Your task to perform on an android device: change notifications settings Image 0: 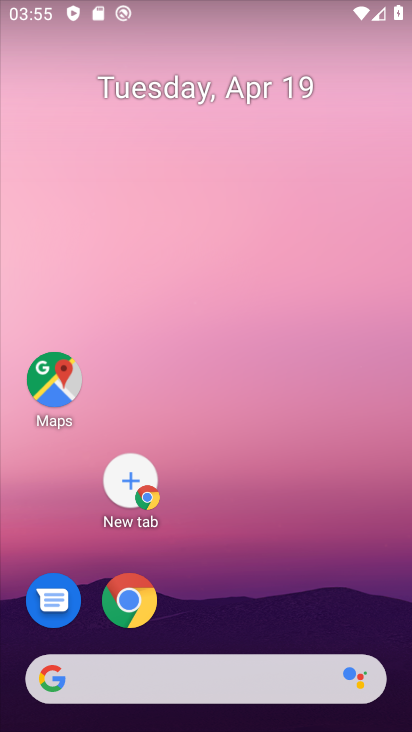
Step 0: drag from (199, 10) to (196, 520)
Your task to perform on an android device: change notifications settings Image 1: 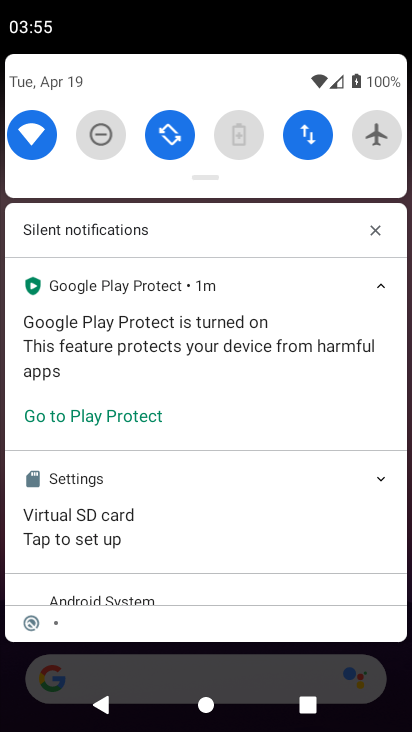
Step 1: drag from (255, 85) to (203, 663)
Your task to perform on an android device: change notifications settings Image 2: 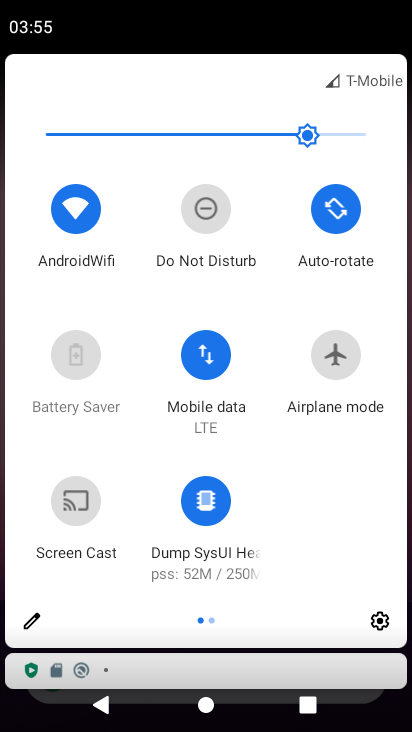
Step 2: click (385, 623)
Your task to perform on an android device: change notifications settings Image 3: 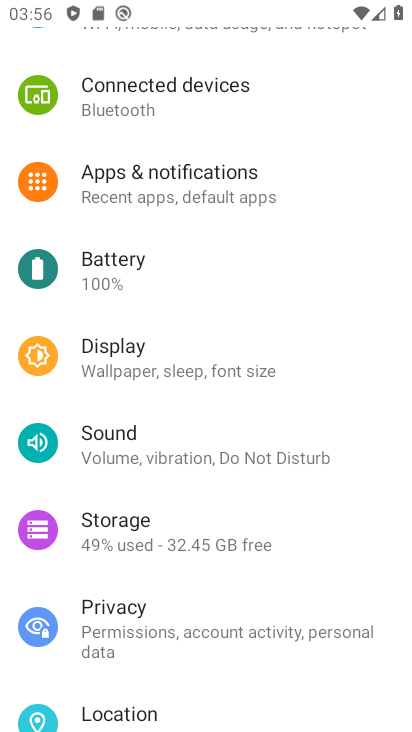
Step 3: click (186, 199)
Your task to perform on an android device: change notifications settings Image 4: 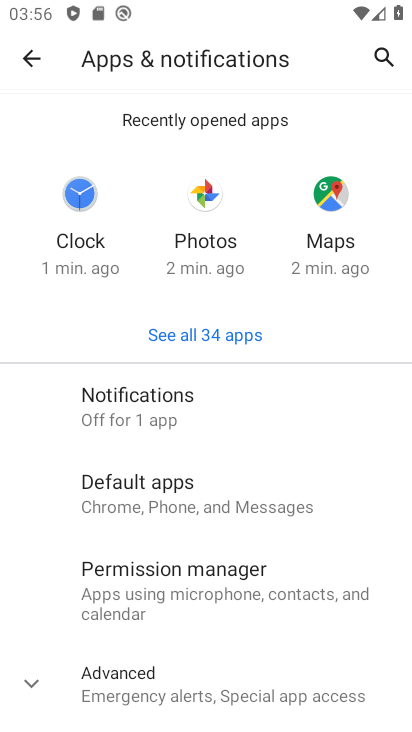
Step 4: click (157, 425)
Your task to perform on an android device: change notifications settings Image 5: 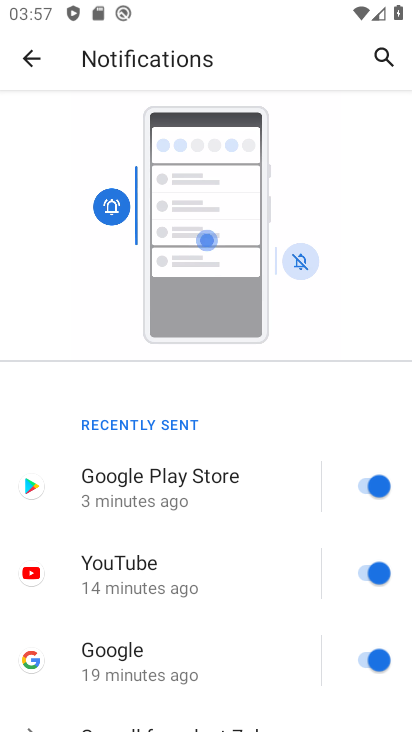
Step 5: click (370, 494)
Your task to perform on an android device: change notifications settings Image 6: 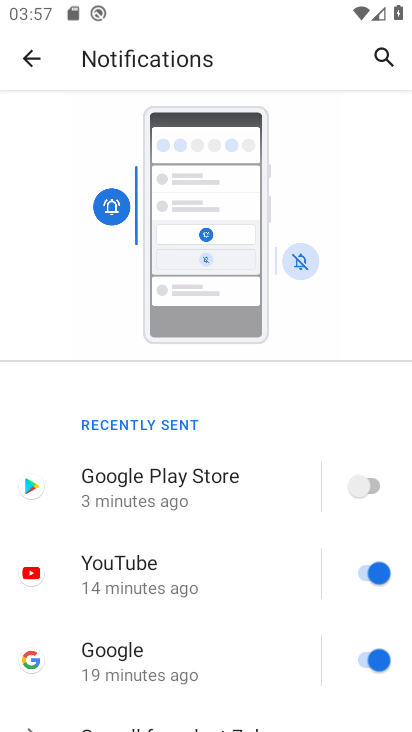
Step 6: click (368, 580)
Your task to perform on an android device: change notifications settings Image 7: 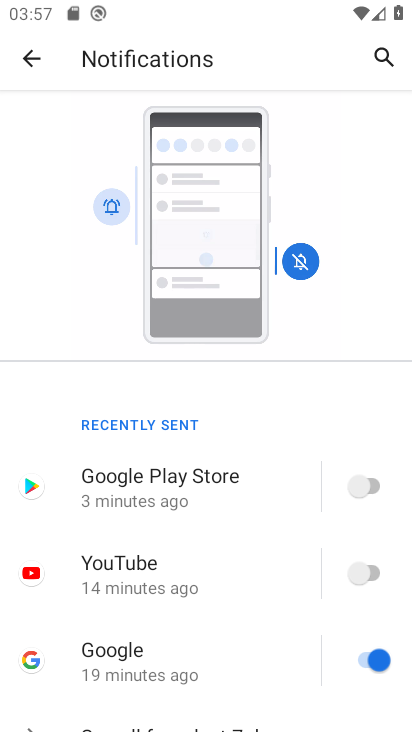
Step 7: task complete